Your task to perform on an android device: check storage Image 0: 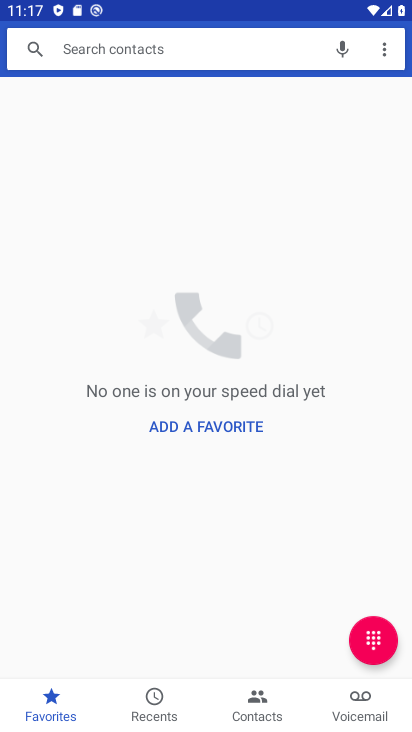
Step 0: press back button
Your task to perform on an android device: check storage Image 1: 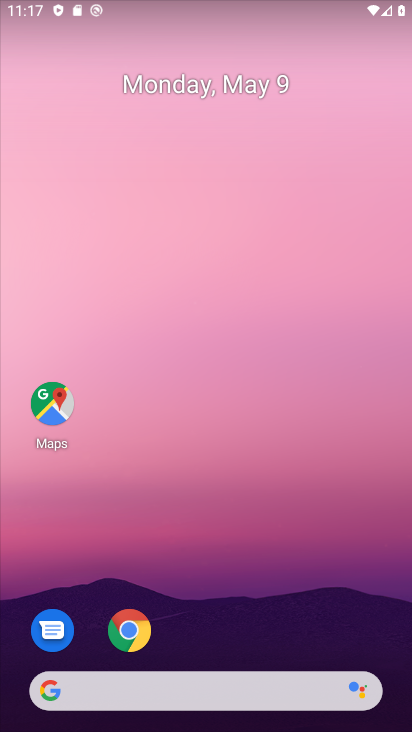
Step 1: drag from (271, 569) to (187, 14)
Your task to perform on an android device: check storage Image 2: 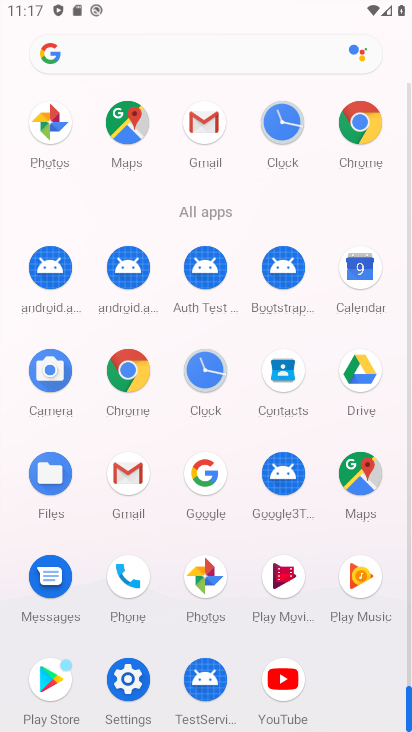
Step 2: click (128, 676)
Your task to perform on an android device: check storage Image 3: 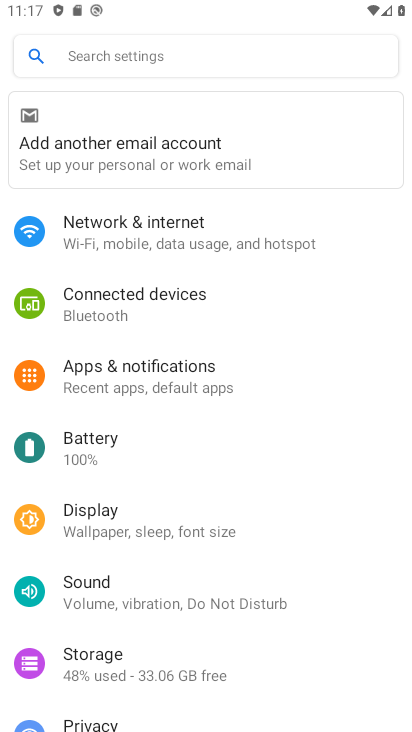
Step 3: drag from (245, 579) to (256, 150)
Your task to perform on an android device: check storage Image 4: 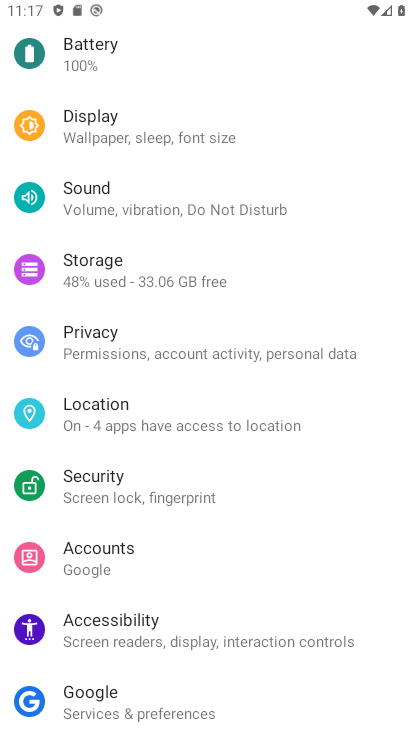
Step 4: click (131, 269)
Your task to perform on an android device: check storage Image 5: 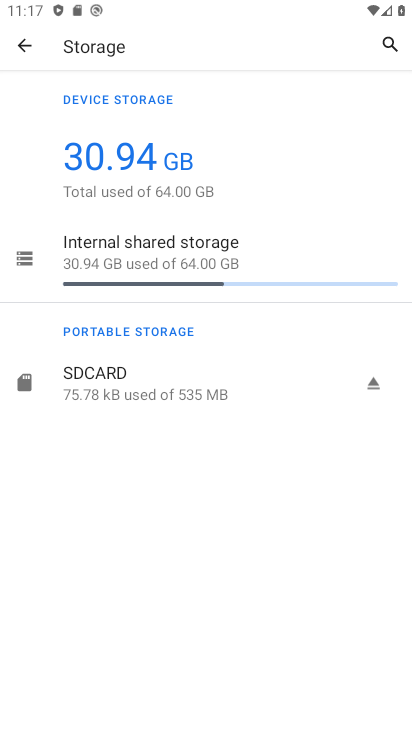
Step 5: task complete